Your task to perform on an android device: toggle translation in the chrome app Image 0: 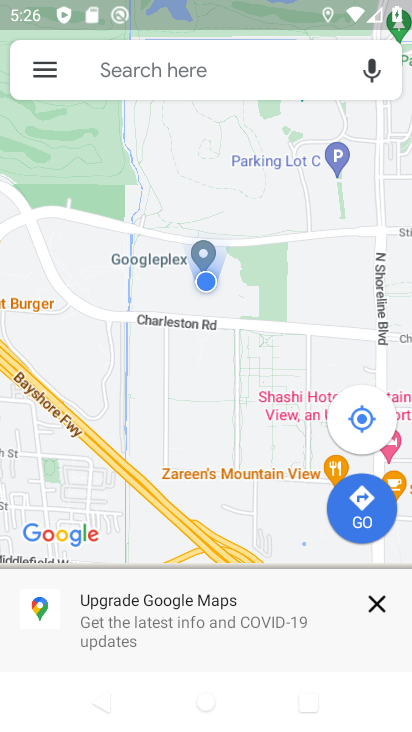
Step 0: press home button
Your task to perform on an android device: toggle translation in the chrome app Image 1: 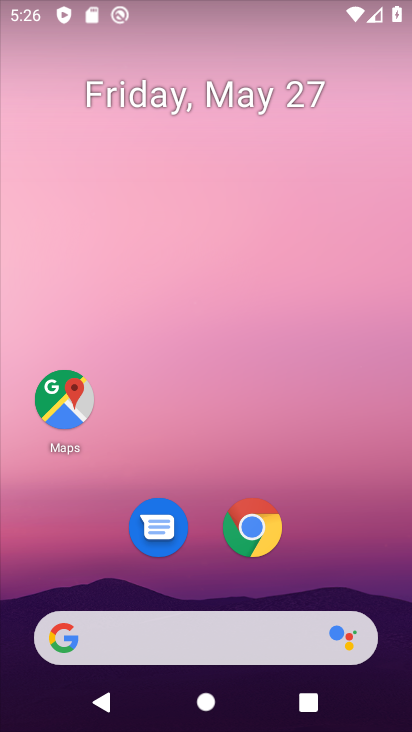
Step 1: click (253, 534)
Your task to perform on an android device: toggle translation in the chrome app Image 2: 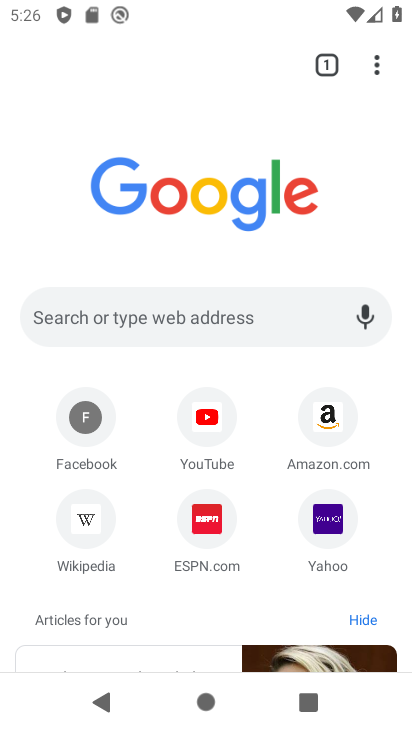
Step 2: click (380, 76)
Your task to perform on an android device: toggle translation in the chrome app Image 3: 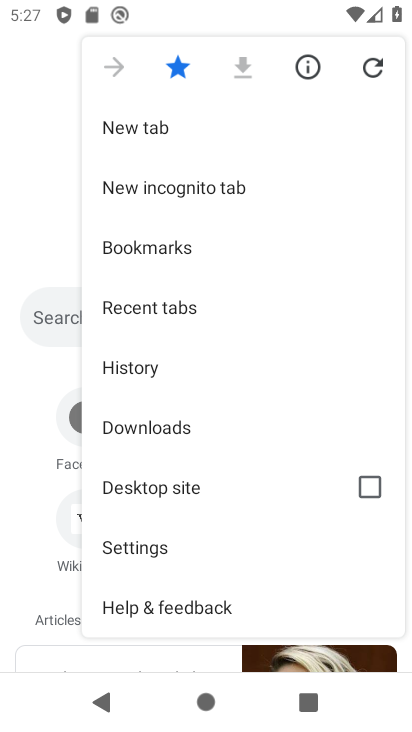
Step 3: click (152, 540)
Your task to perform on an android device: toggle translation in the chrome app Image 4: 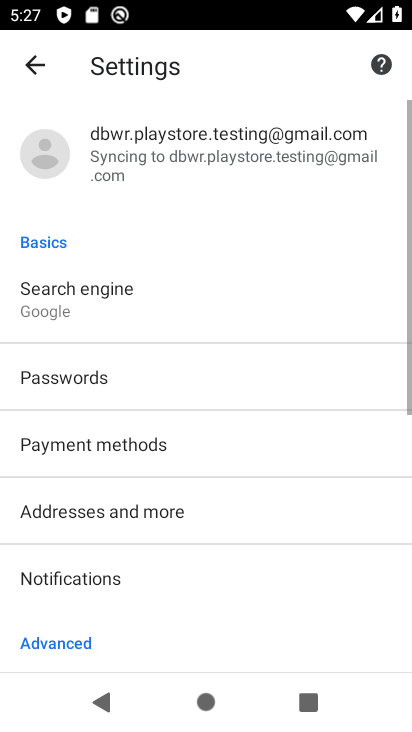
Step 4: drag from (241, 590) to (233, 180)
Your task to perform on an android device: toggle translation in the chrome app Image 5: 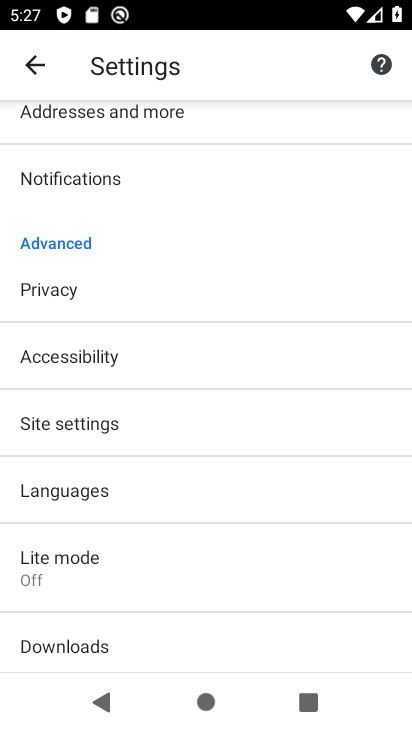
Step 5: click (88, 490)
Your task to perform on an android device: toggle translation in the chrome app Image 6: 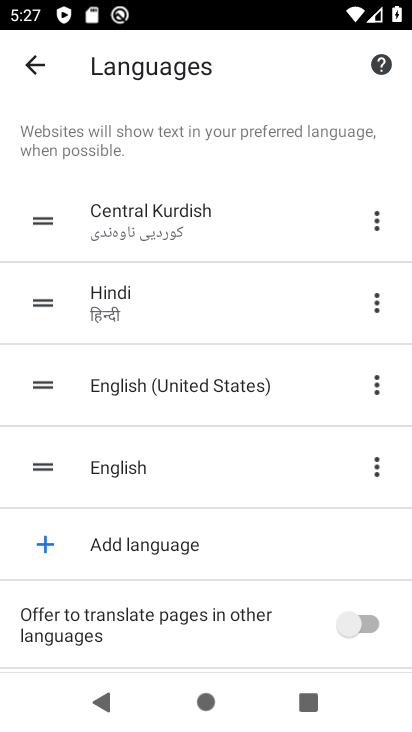
Step 6: click (370, 627)
Your task to perform on an android device: toggle translation in the chrome app Image 7: 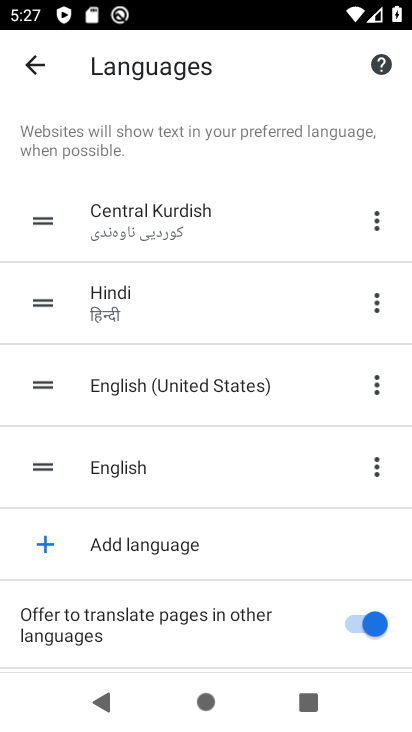
Step 7: task complete